Your task to perform on an android device: Go to privacy settings Image 0: 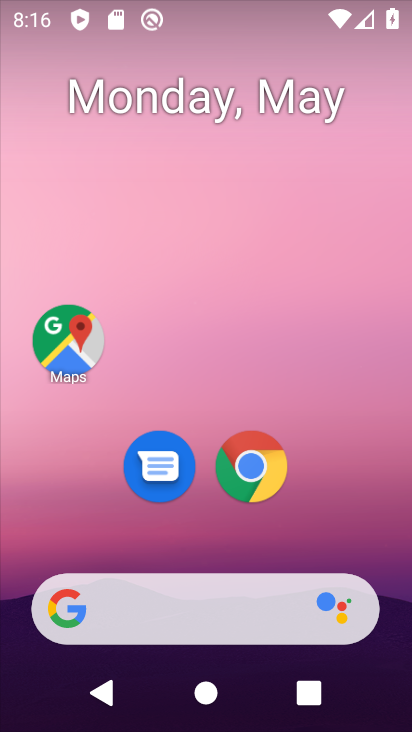
Step 0: press home button
Your task to perform on an android device: Go to privacy settings Image 1: 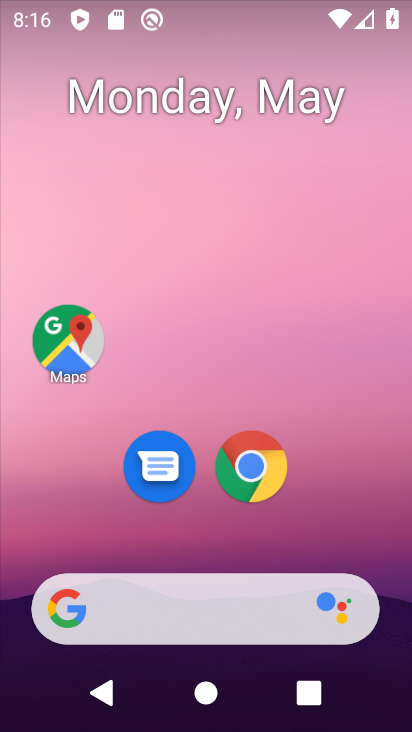
Step 1: drag from (260, 653) to (324, 80)
Your task to perform on an android device: Go to privacy settings Image 2: 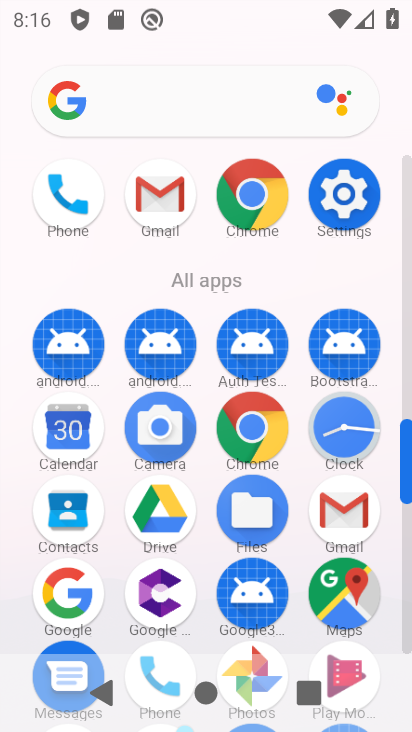
Step 2: click (347, 195)
Your task to perform on an android device: Go to privacy settings Image 3: 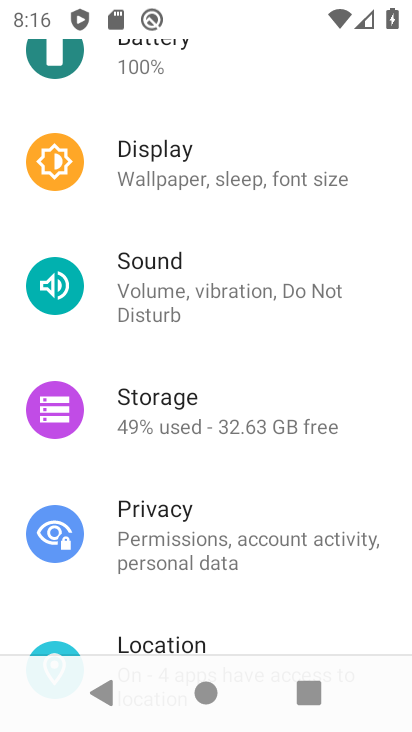
Step 3: click (164, 539)
Your task to perform on an android device: Go to privacy settings Image 4: 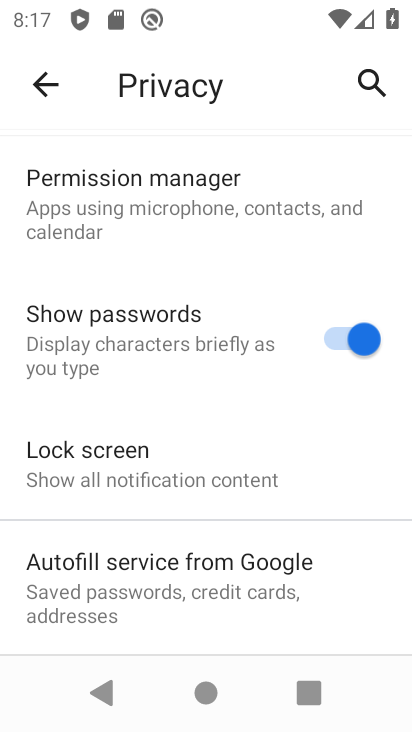
Step 4: task complete